Your task to perform on an android device: open app "Facebook Lite" (install if not already installed) and go to login screen Image 0: 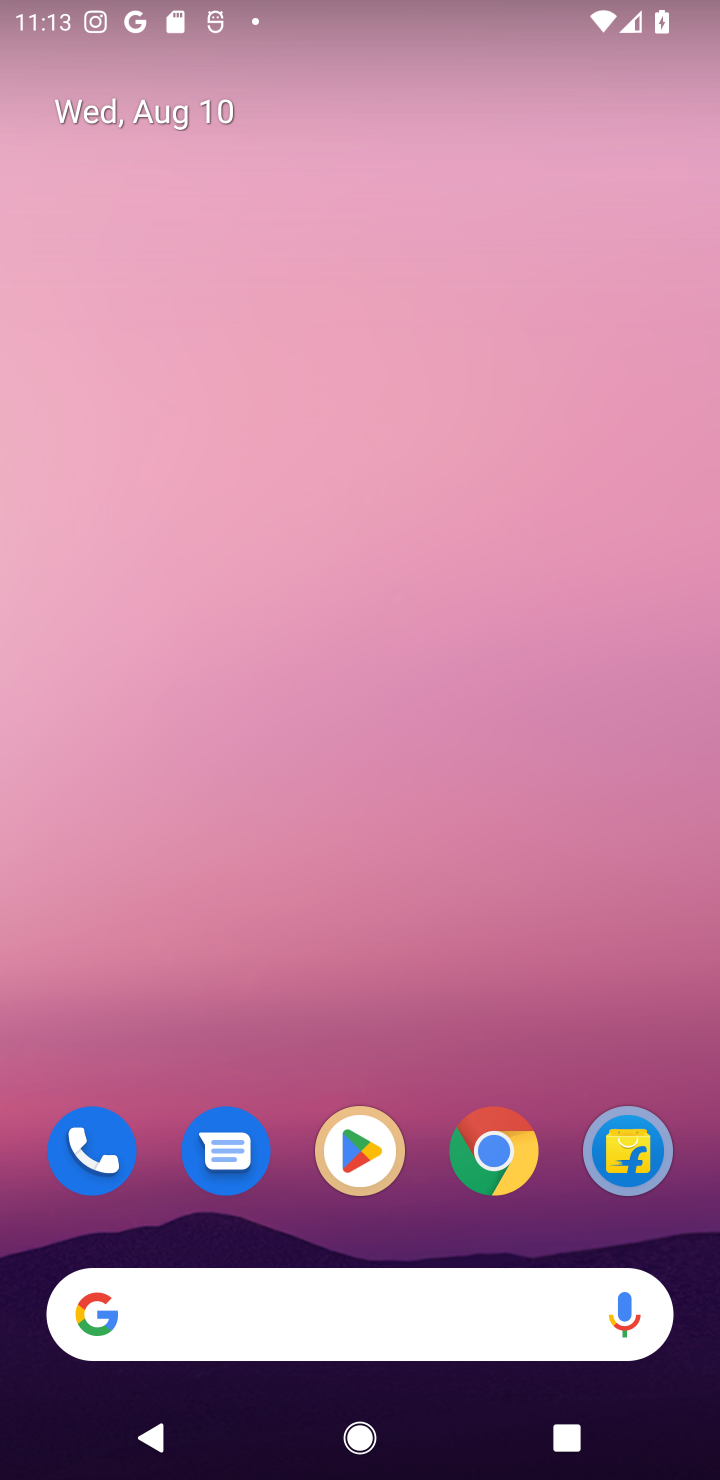
Step 0: click (381, 1142)
Your task to perform on an android device: open app "Facebook Lite" (install if not already installed) and go to login screen Image 1: 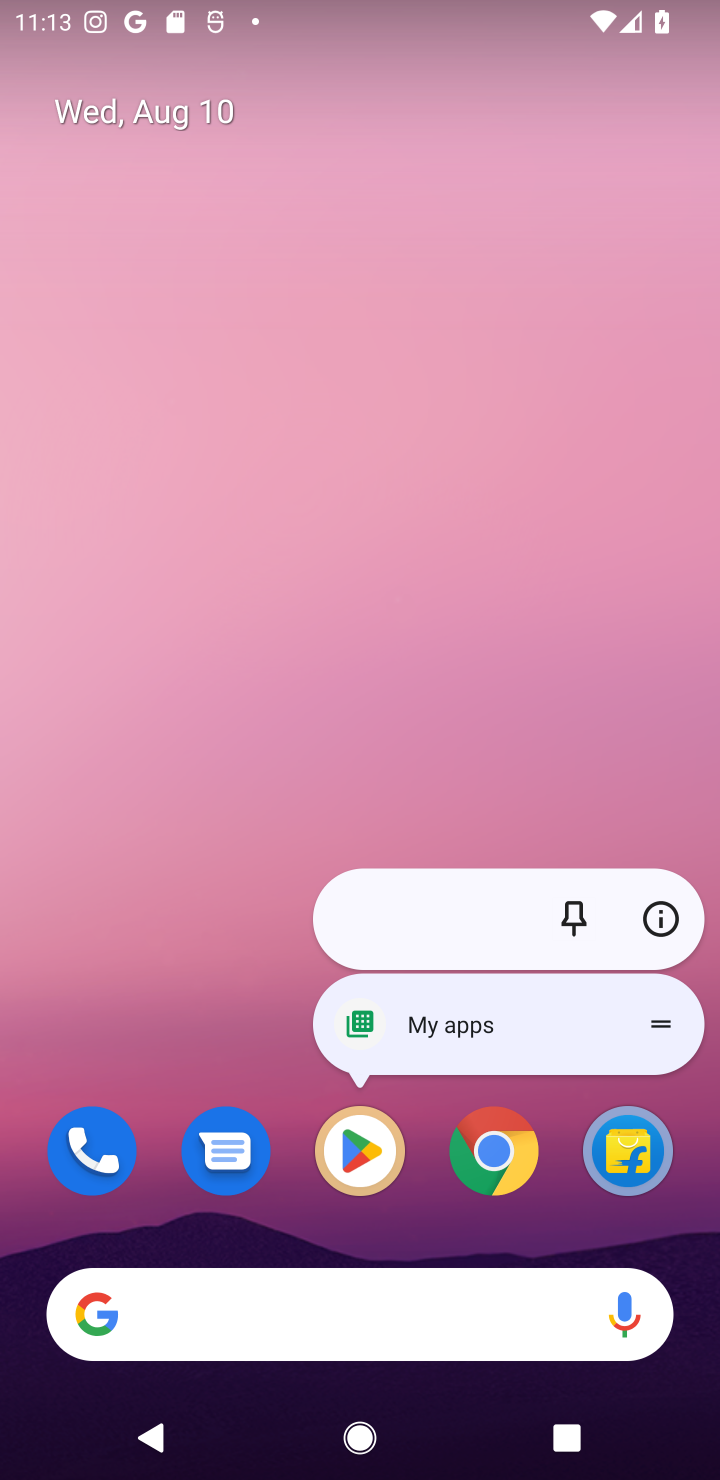
Step 1: click (370, 1136)
Your task to perform on an android device: open app "Facebook Lite" (install if not already installed) and go to login screen Image 2: 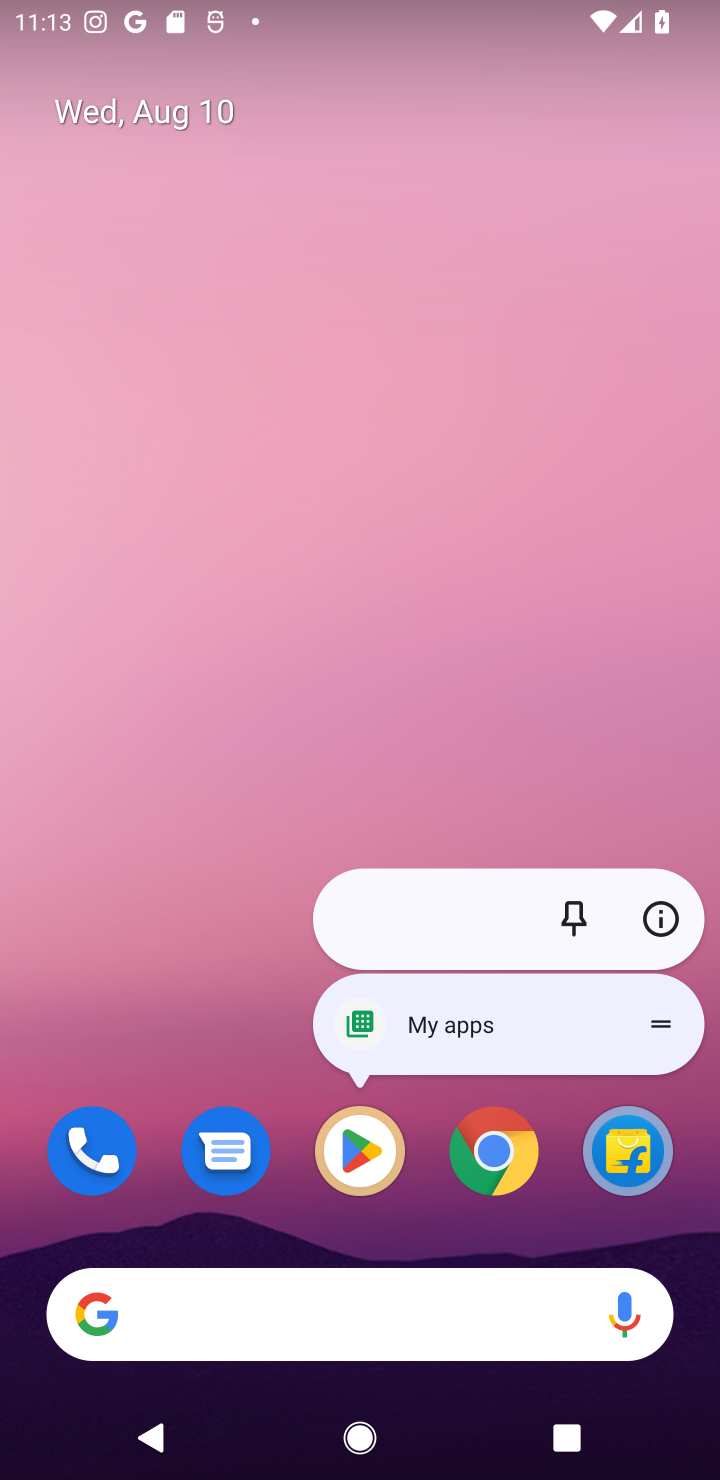
Step 2: click (361, 1160)
Your task to perform on an android device: open app "Facebook Lite" (install if not already installed) and go to login screen Image 3: 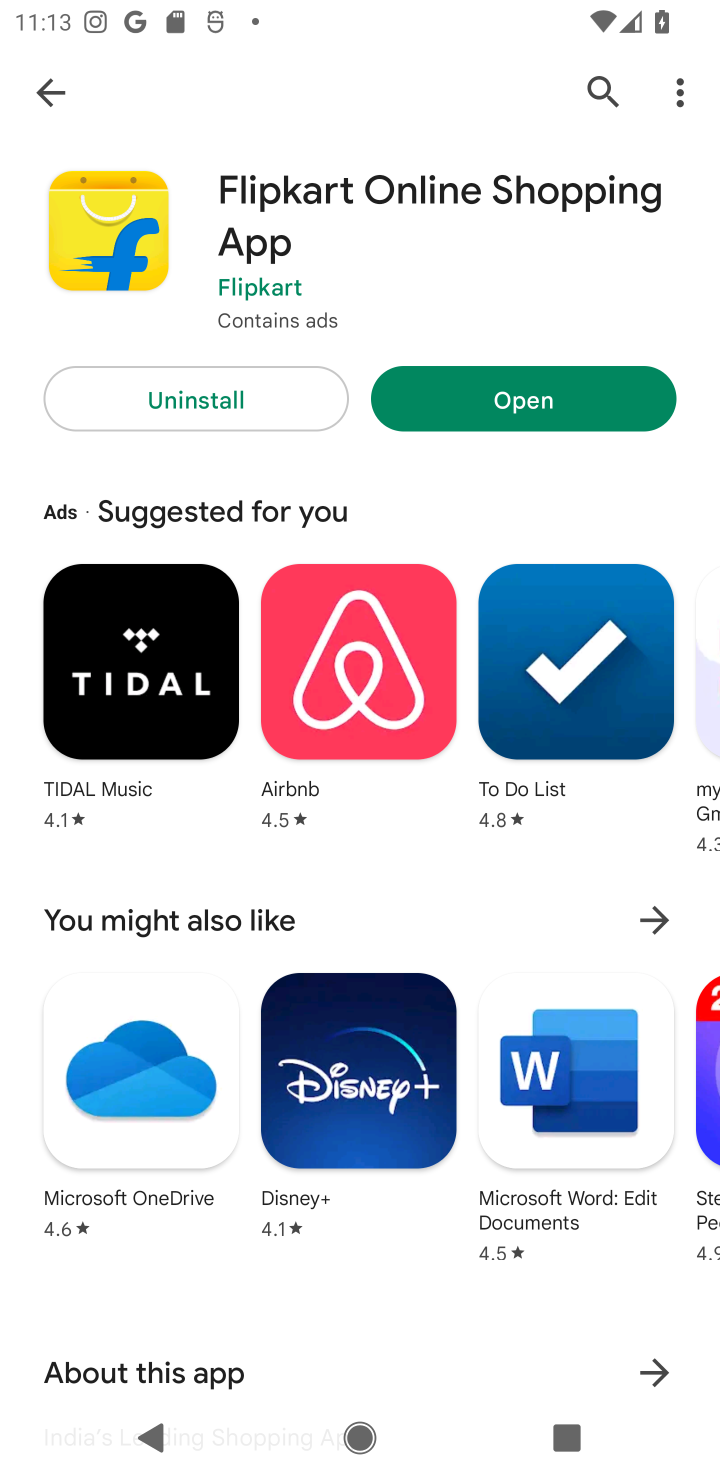
Step 3: drag from (317, 1071) to (560, 84)
Your task to perform on an android device: open app "Facebook Lite" (install if not already installed) and go to login screen Image 4: 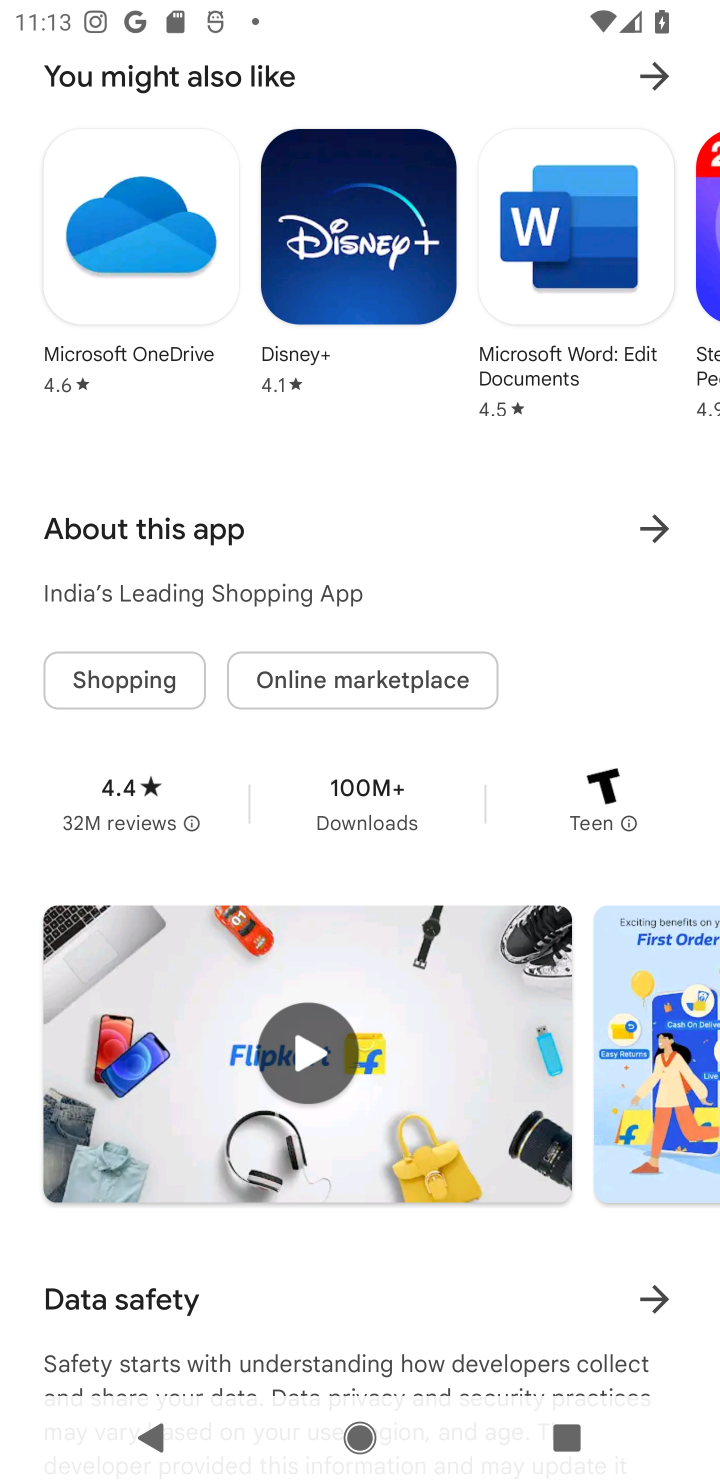
Step 4: drag from (509, 408) to (349, 1405)
Your task to perform on an android device: open app "Facebook Lite" (install if not already installed) and go to login screen Image 5: 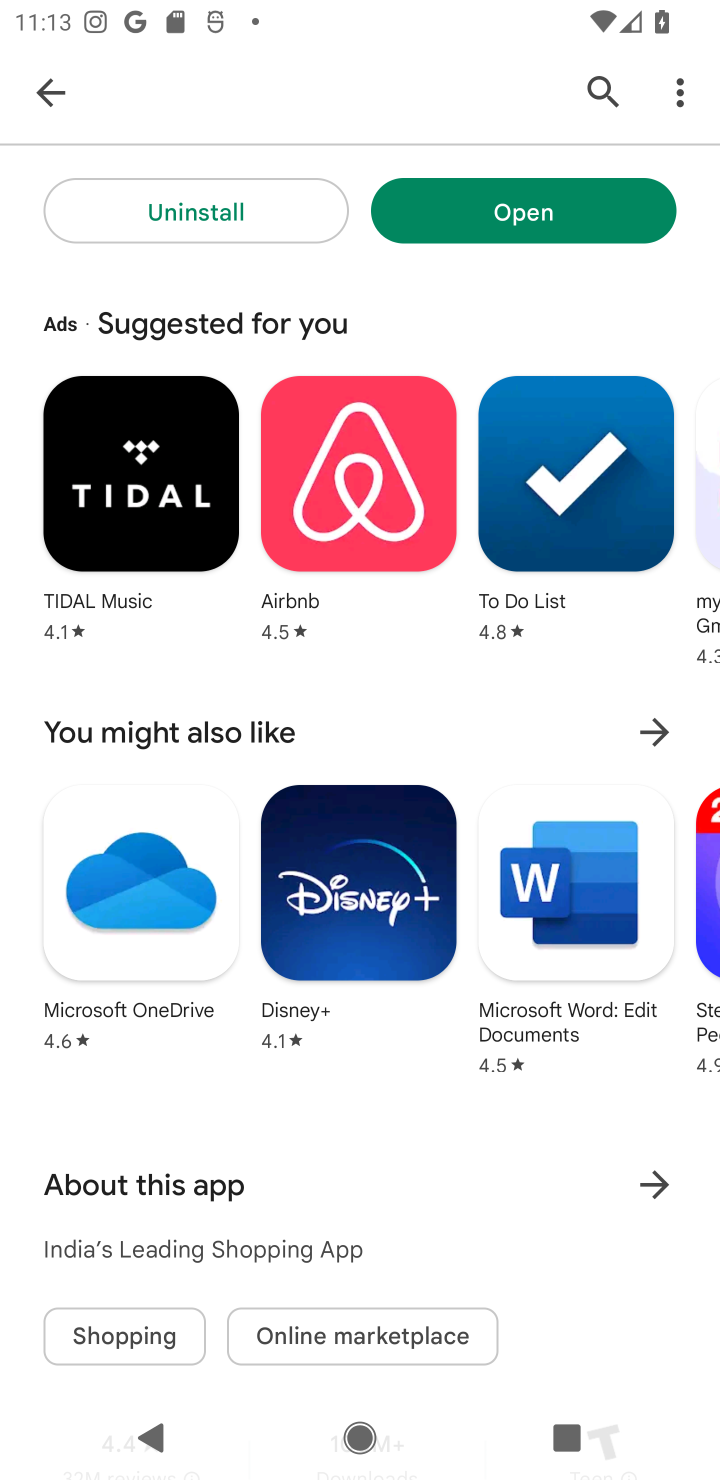
Step 5: click (583, 92)
Your task to perform on an android device: open app "Facebook Lite" (install if not already installed) and go to login screen Image 6: 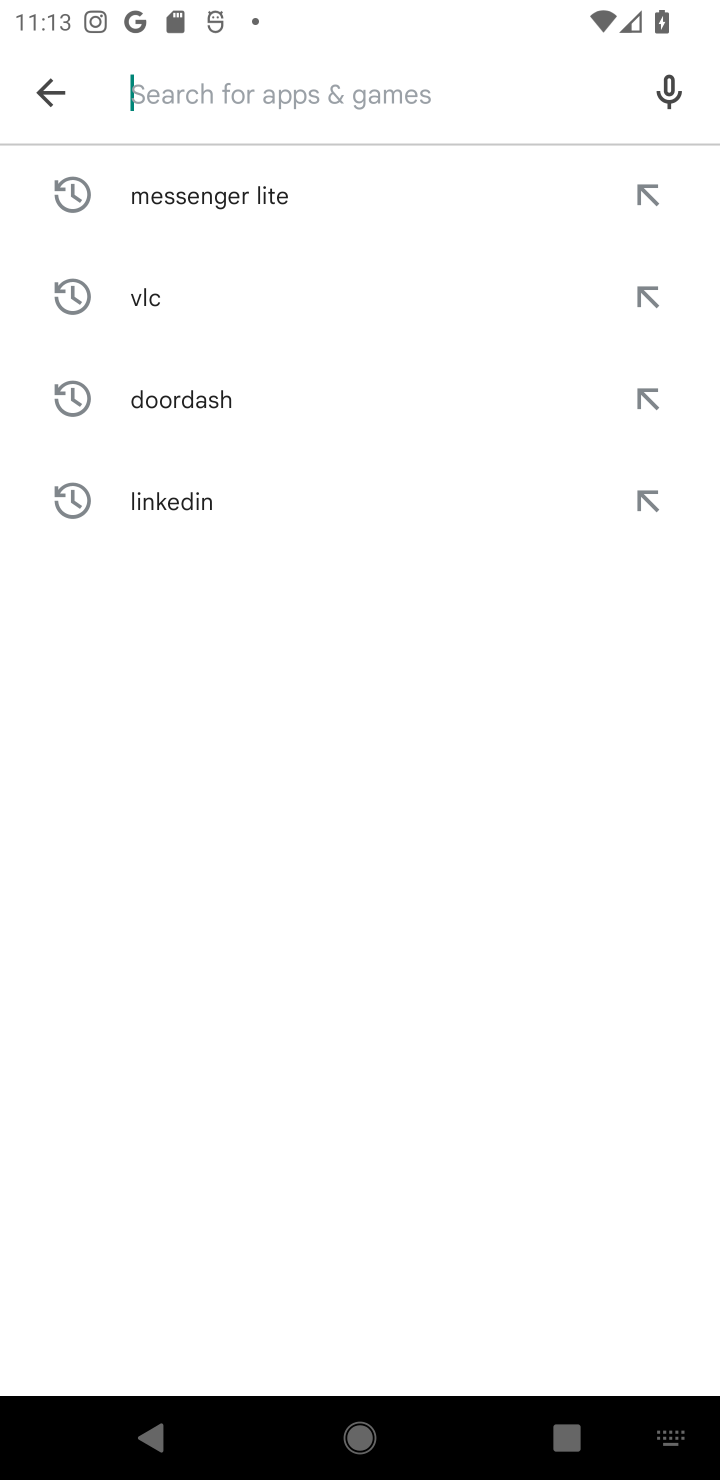
Step 6: click (235, 82)
Your task to perform on an android device: open app "Facebook Lite" (install if not already installed) and go to login screen Image 7: 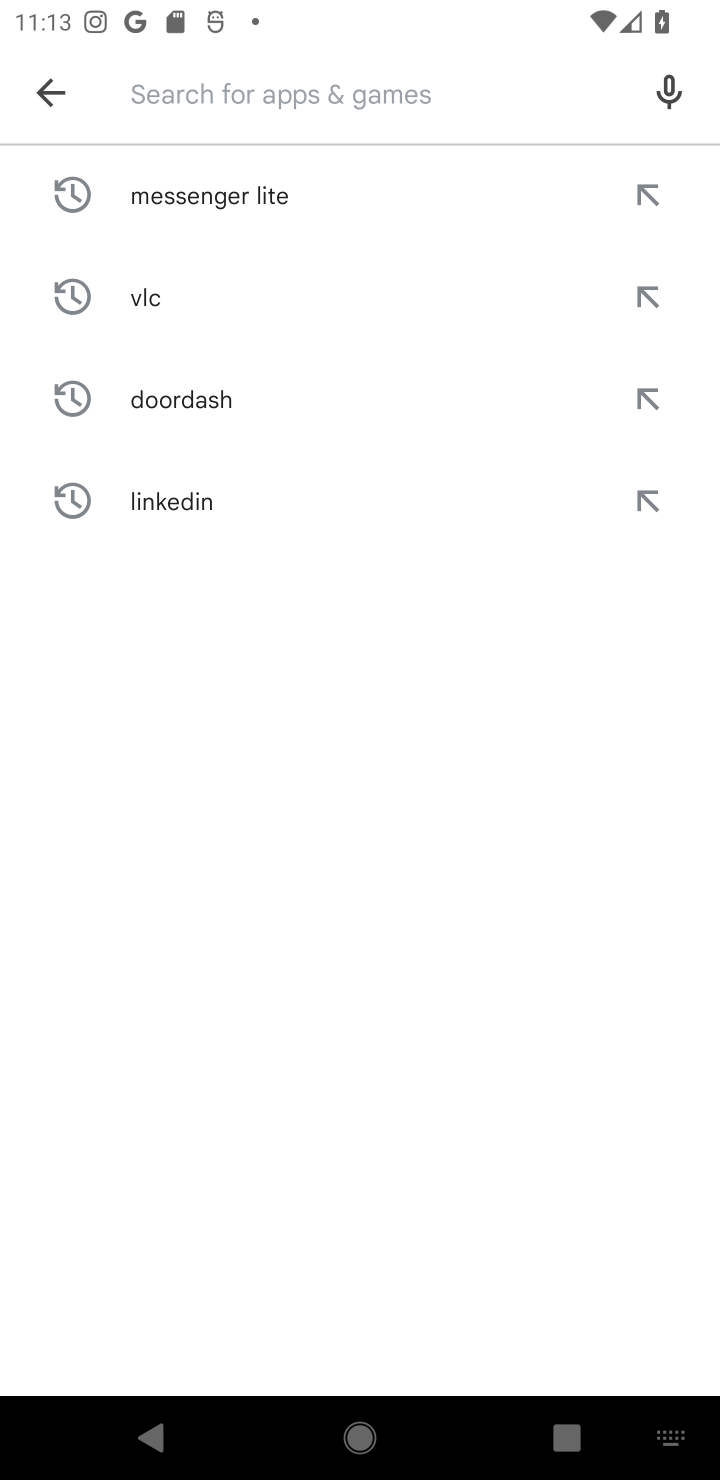
Step 7: type "Facebook Lite"
Your task to perform on an android device: open app "Facebook Lite" (install if not already installed) and go to login screen Image 8: 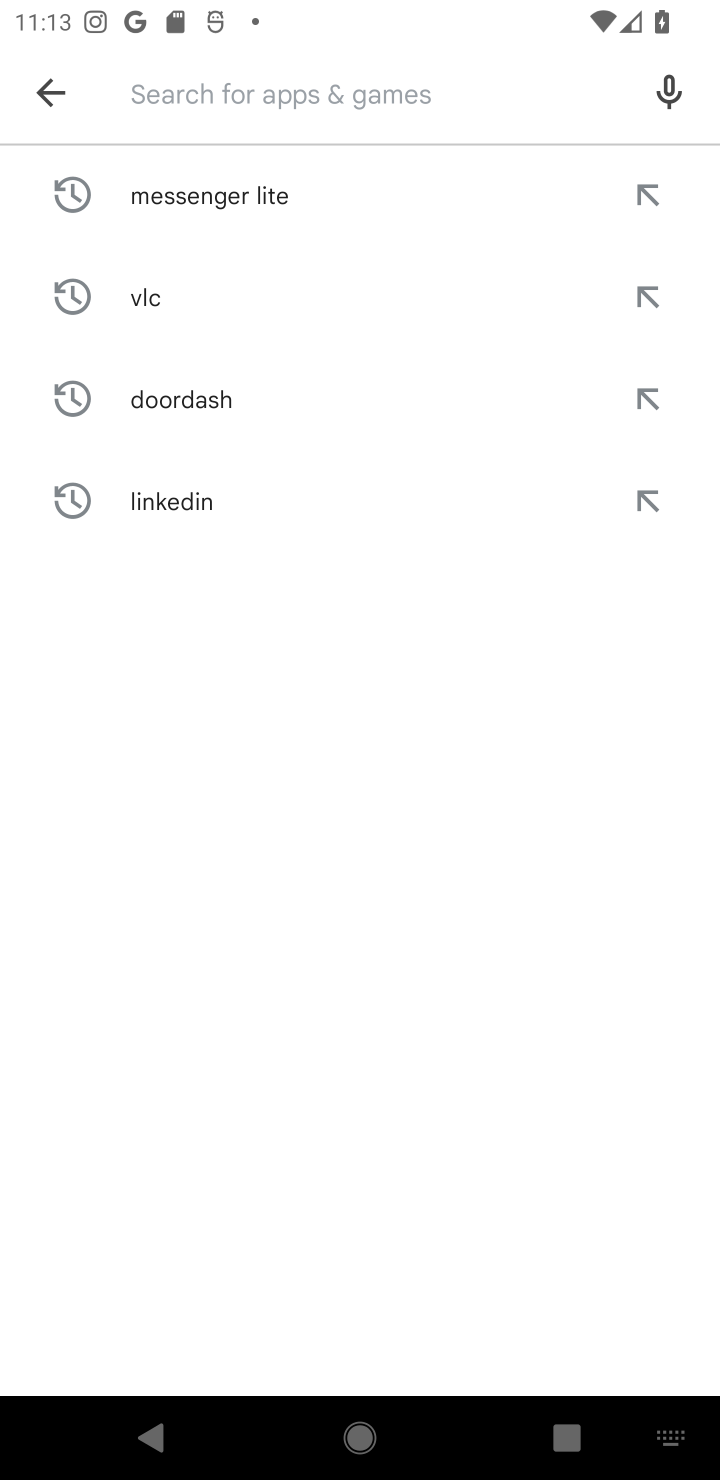
Step 8: click (228, 785)
Your task to perform on an android device: open app "Facebook Lite" (install if not already installed) and go to login screen Image 9: 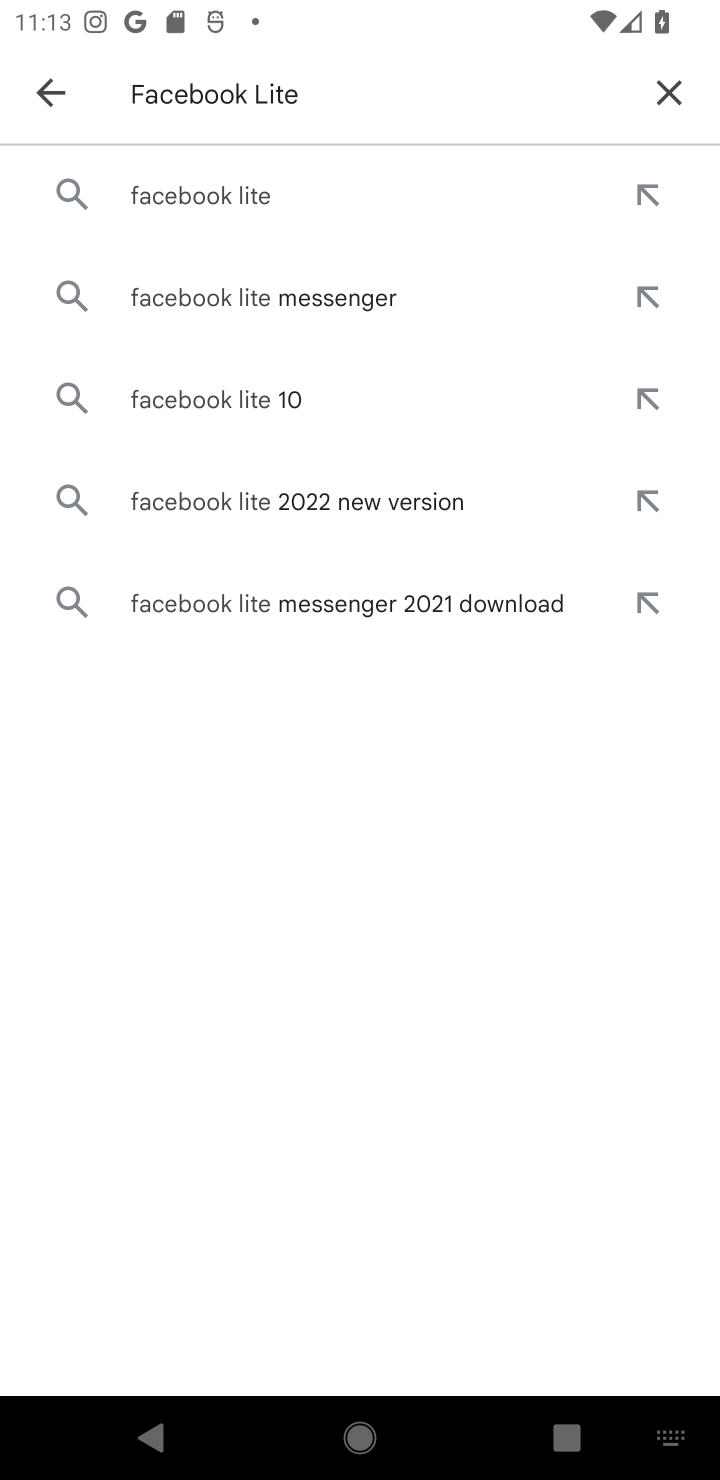
Step 9: click (268, 200)
Your task to perform on an android device: open app "Facebook Lite" (install if not already installed) and go to login screen Image 10: 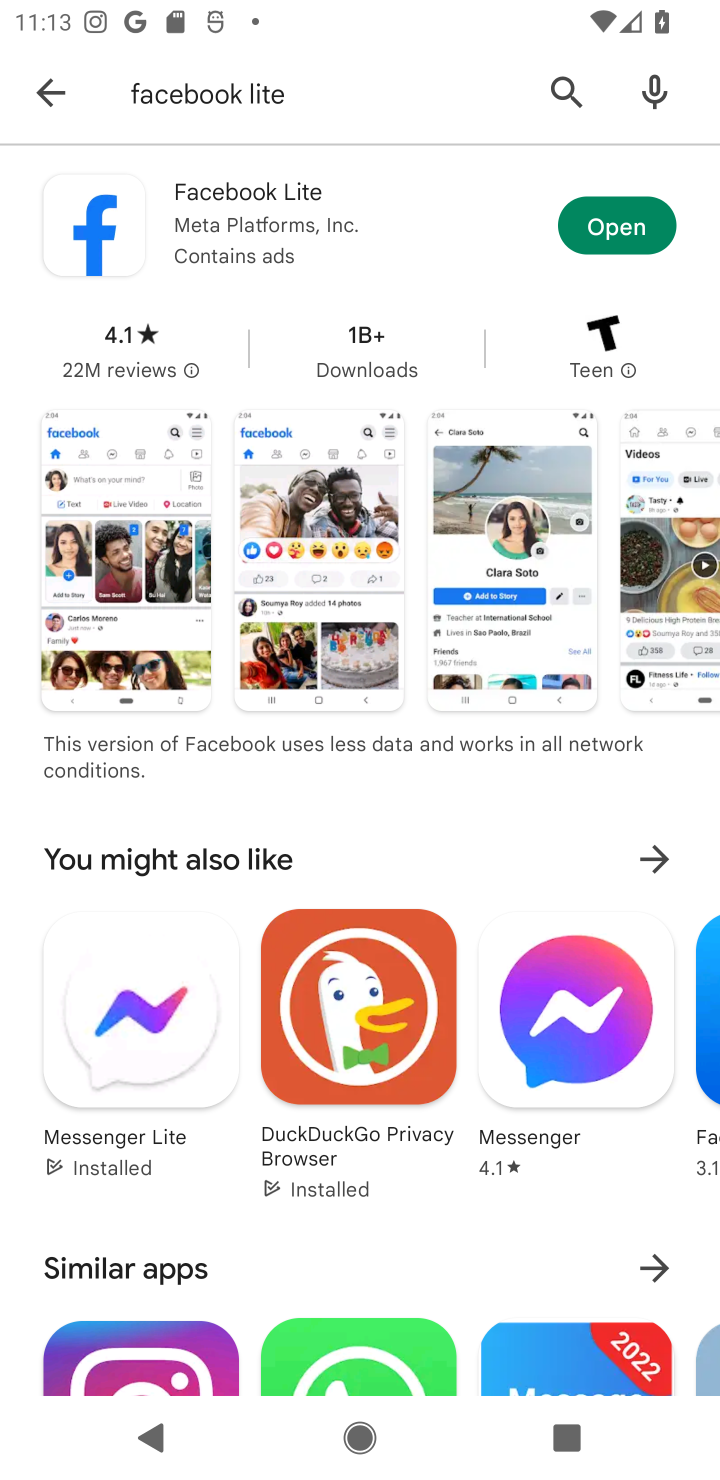
Step 10: click (620, 217)
Your task to perform on an android device: open app "Facebook Lite" (install if not already installed) and go to login screen Image 11: 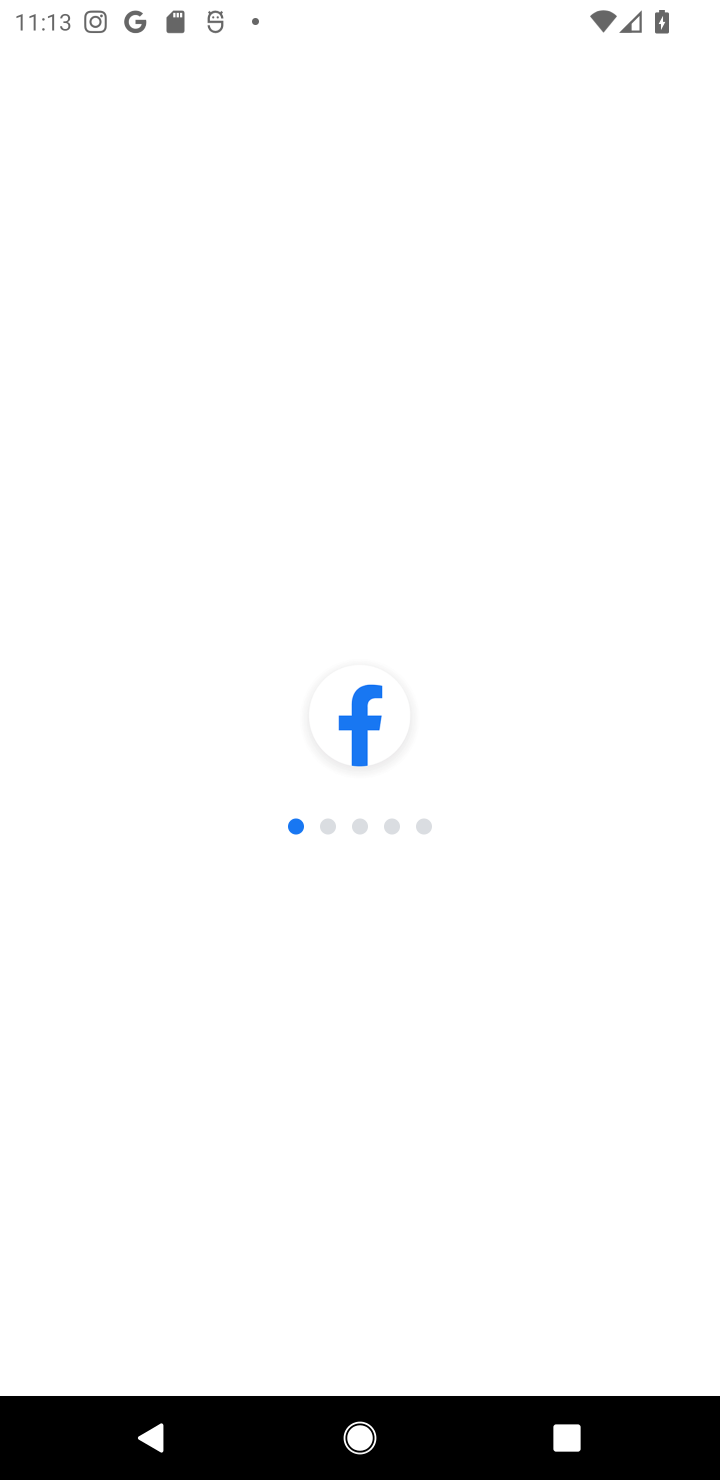
Step 11: task complete